Your task to perform on an android device: add a label to a message in the gmail app Image 0: 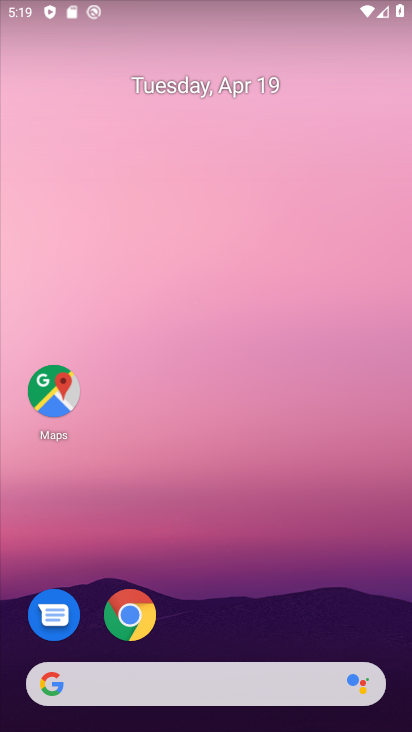
Step 0: drag from (221, 629) to (211, 69)
Your task to perform on an android device: add a label to a message in the gmail app Image 1: 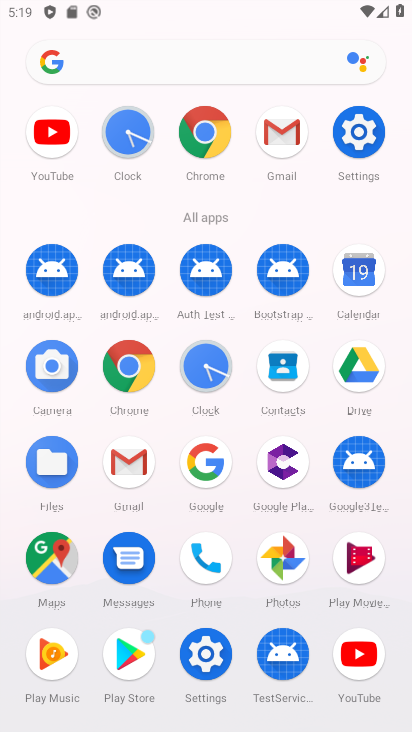
Step 1: click (278, 134)
Your task to perform on an android device: add a label to a message in the gmail app Image 2: 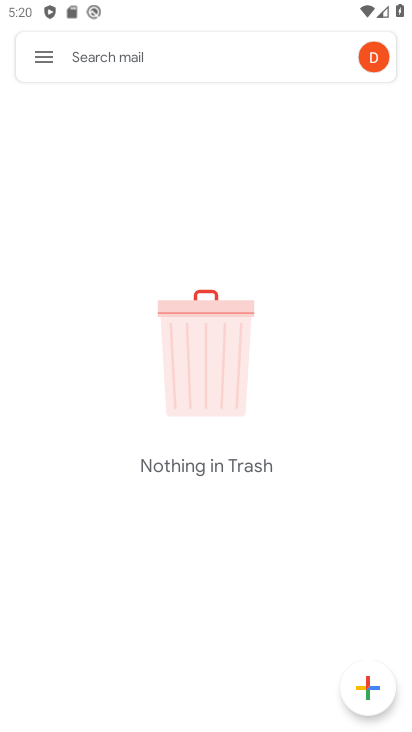
Step 2: click (42, 53)
Your task to perform on an android device: add a label to a message in the gmail app Image 3: 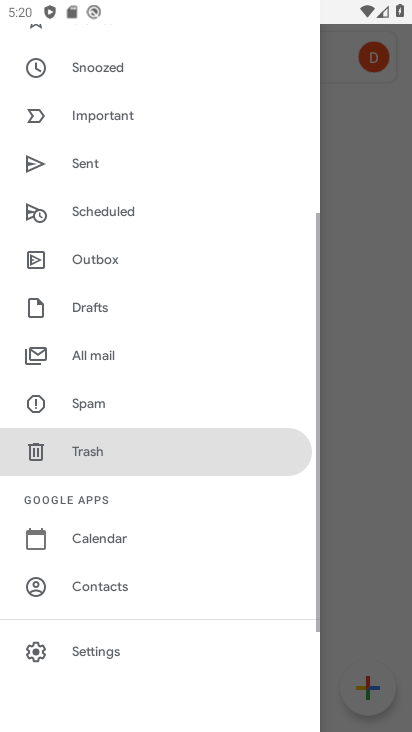
Step 3: drag from (131, 131) to (136, 708)
Your task to perform on an android device: add a label to a message in the gmail app Image 4: 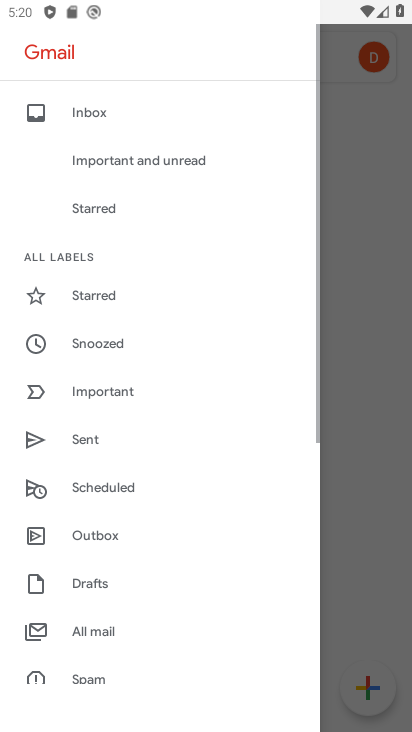
Step 4: click (76, 106)
Your task to perform on an android device: add a label to a message in the gmail app Image 5: 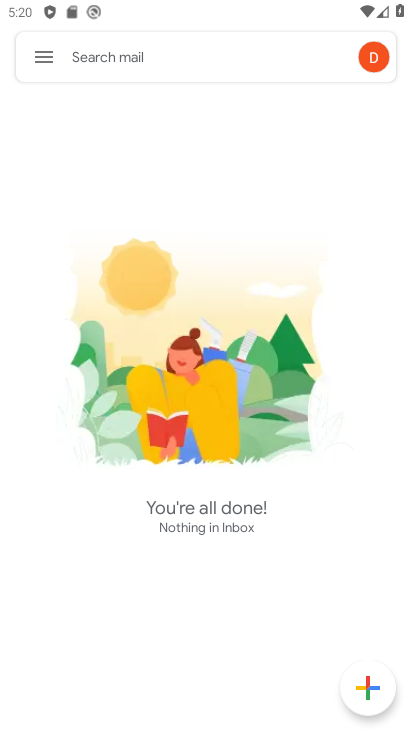
Step 5: task complete